Your task to perform on an android device: open app "Contacts" (install if not already installed) Image 0: 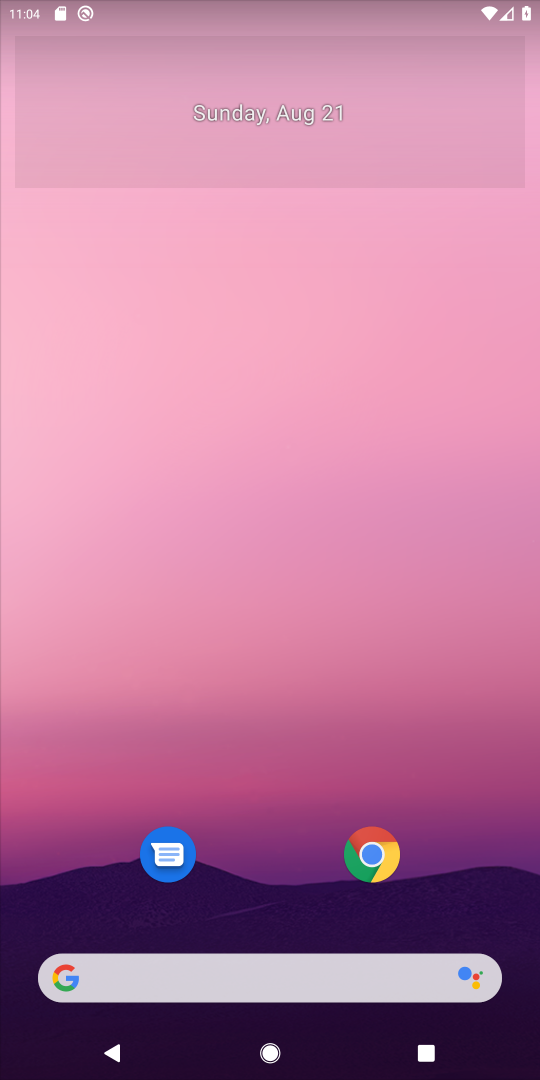
Step 0: click (393, 0)
Your task to perform on an android device: open app "Contacts" (install if not already installed) Image 1: 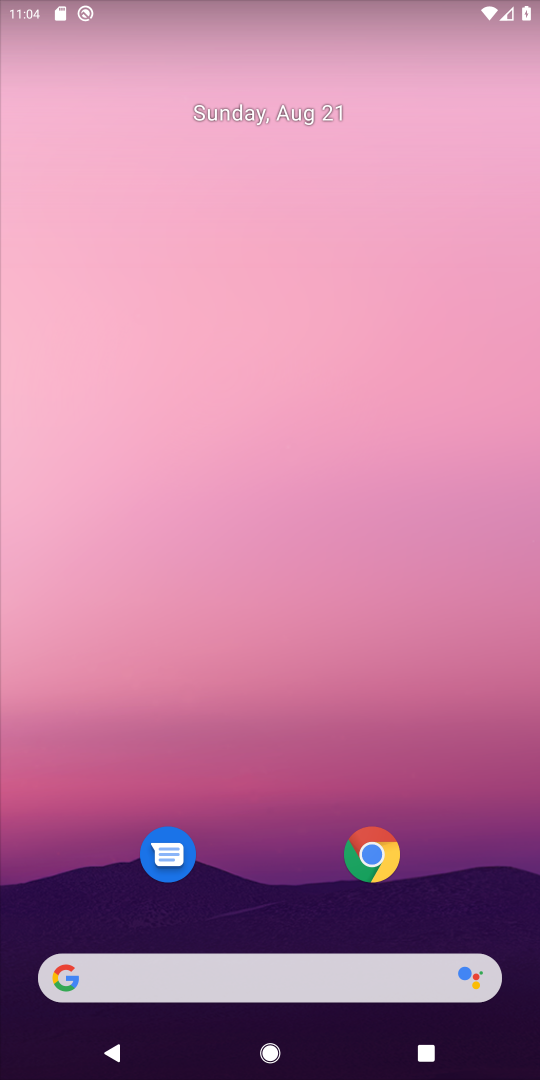
Step 1: drag from (246, 911) to (366, 65)
Your task to perform on an android device: open app "Contacts" (install if not already installed) Image 2: 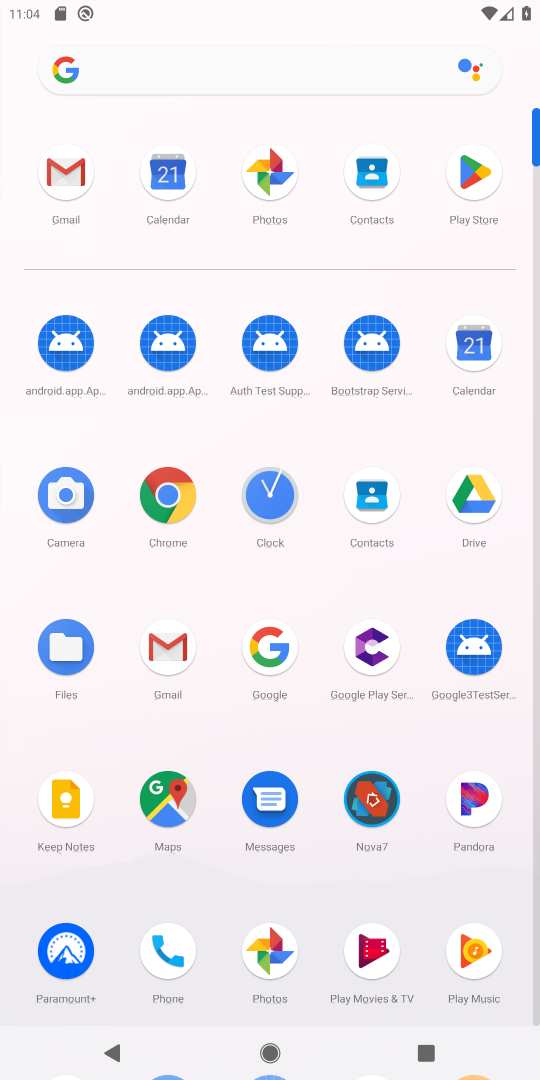
Step 2: click (463, 160)
Your task to perform on an android device: open app "Contacts" (install if not already installed) Image 3: 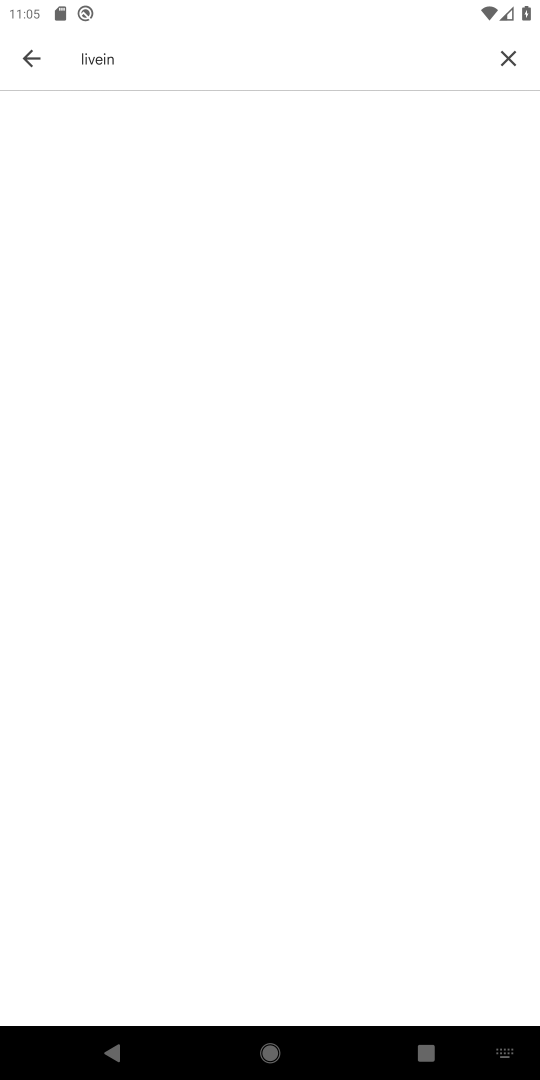
Step 3: press home button
Your task to perform on an android device: open app "Contacts" (install if not already installed) Image 4: 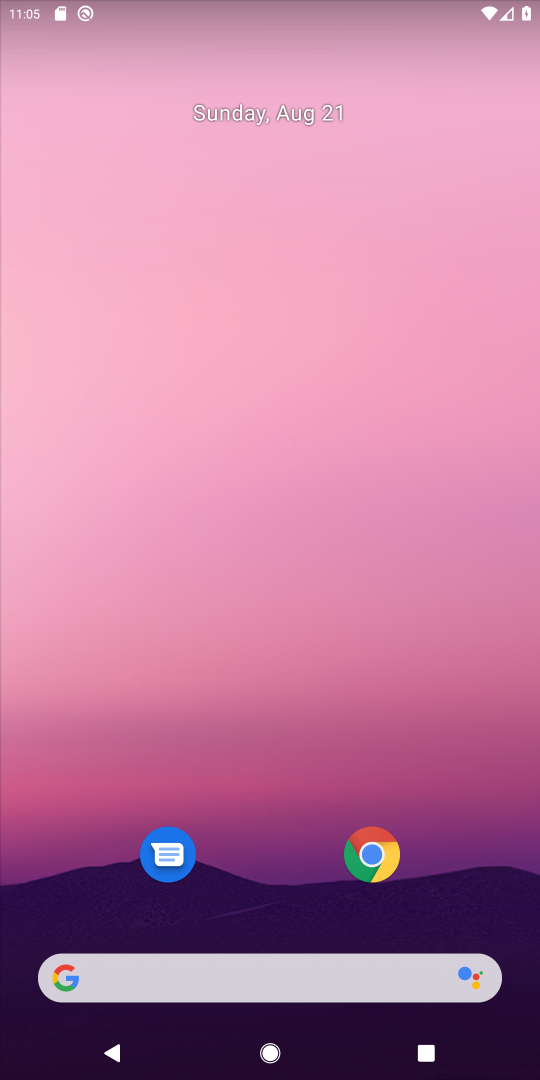
Step 4: drag from (260, 905) to (320, 147)
Your task to perform on an android device: open app "Contacts" (install if not already installed) Image 5: 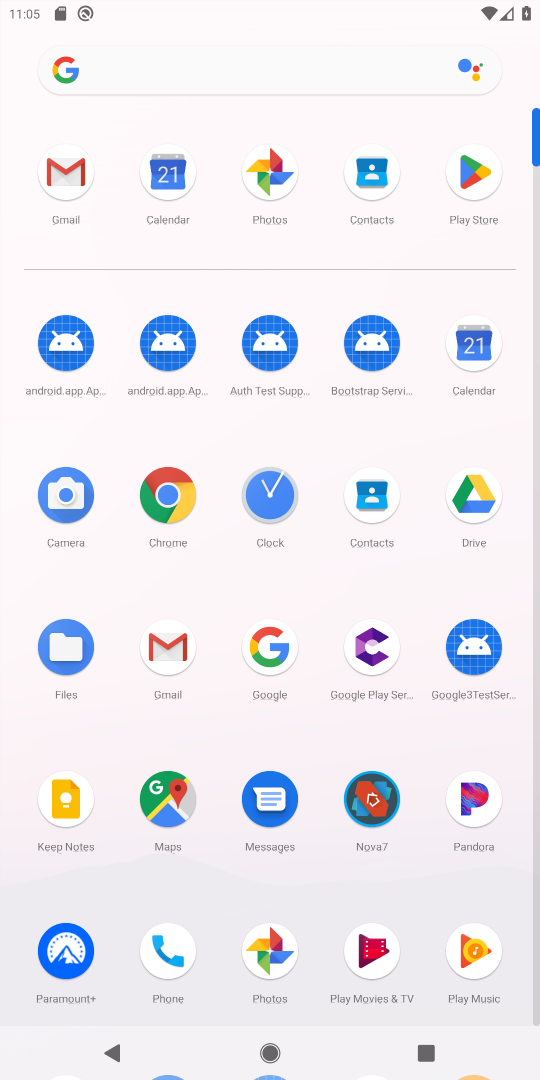
Step 5: click (387, 495)
Your task to perform on an android device: open app "Contacts" (install if not already installed) Image 6: 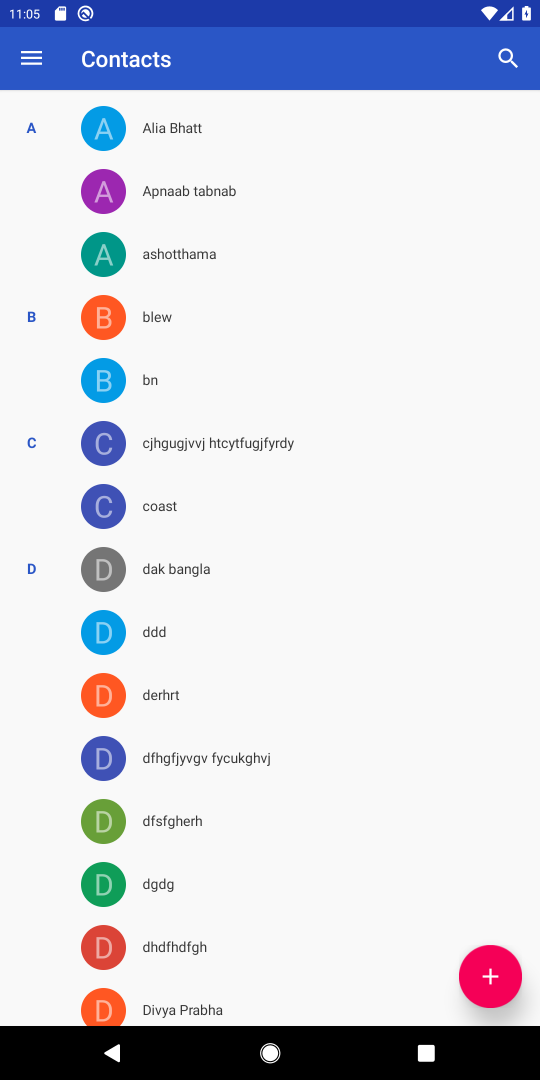
Step 6: task complete